Your task to perform on an android device: Open the web browser Image 0: 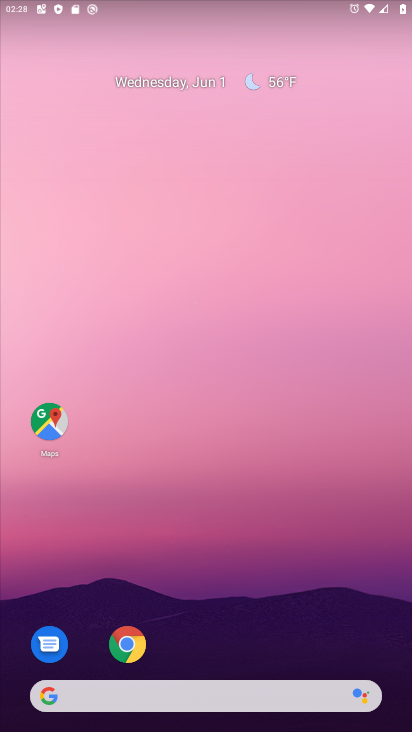
Step 0: click (130, 653)
Your task to perform on an android device: Open the web browser Image 1: 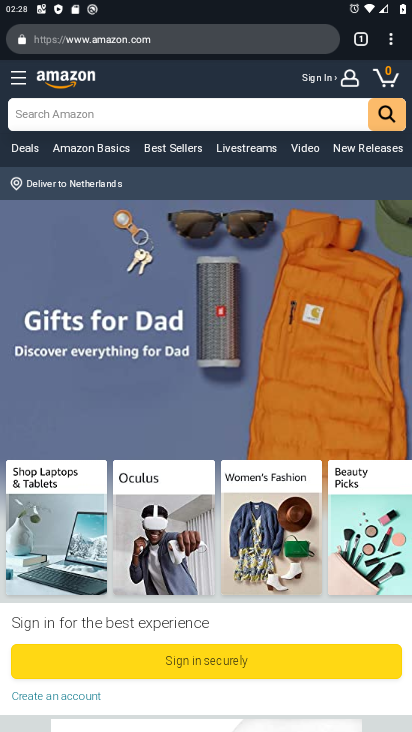
Step 1: task complete